Your task to perform on an android device: snooze an email in the gmail app Image 0: 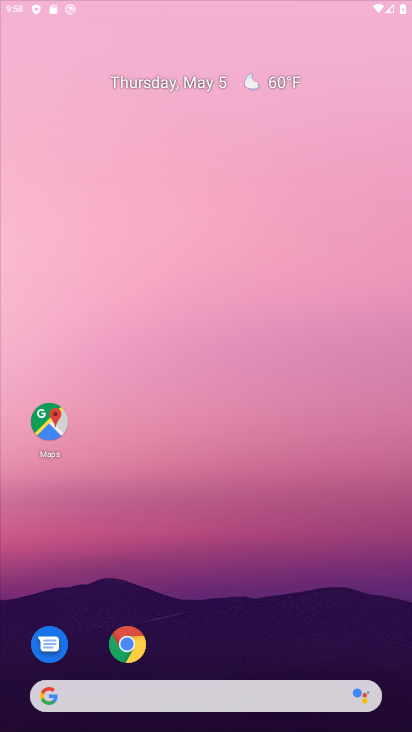
Step 0: click (290, 165)
Your task to perform on an android device: snooze an email in the gmail app Image 1: 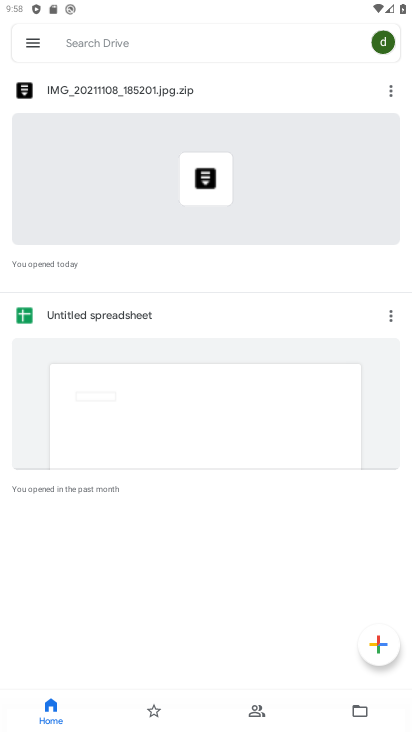
Step 1: press home button
Your task to perform on an android device: snooze an email in the gmail app Image 2: 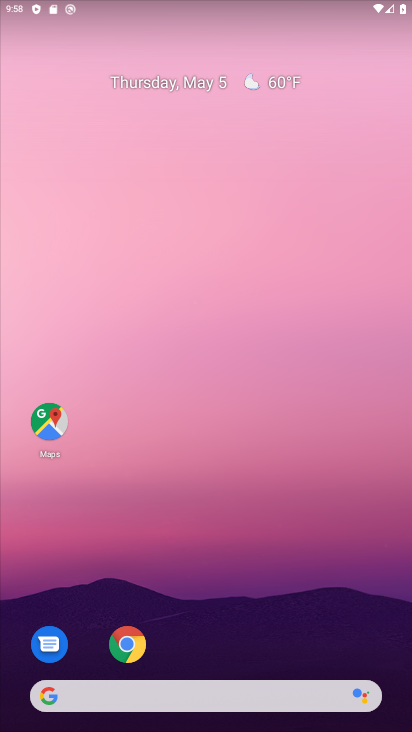
Step 2: drag from (392, 653) to (364, 142)
Your task to perform on an android device: snooze an email in the gmail app Image 3: 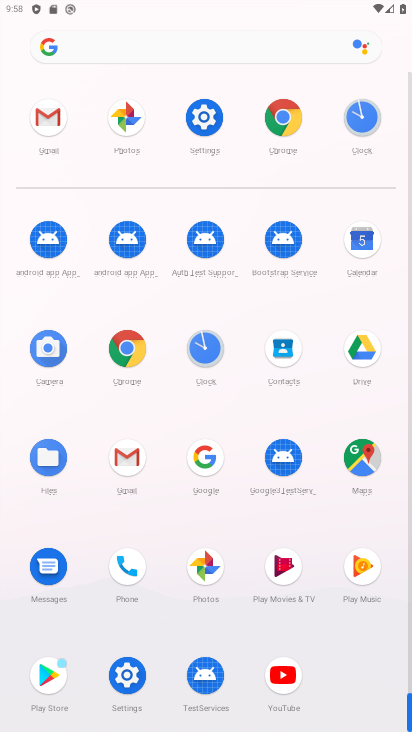
Step 3: click (43, 119)
Your task to perform on an android device: snooze an email in the gmail app Image 4: 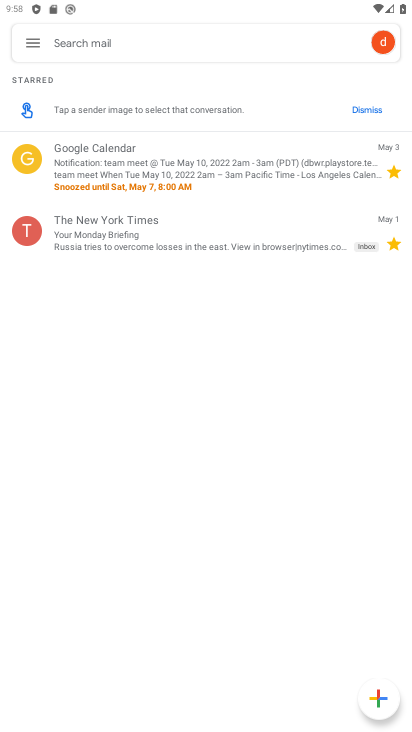
Step 4: click (34, 39)
Your task to perform on an android device: snooze an email in the gmail app Image 5: 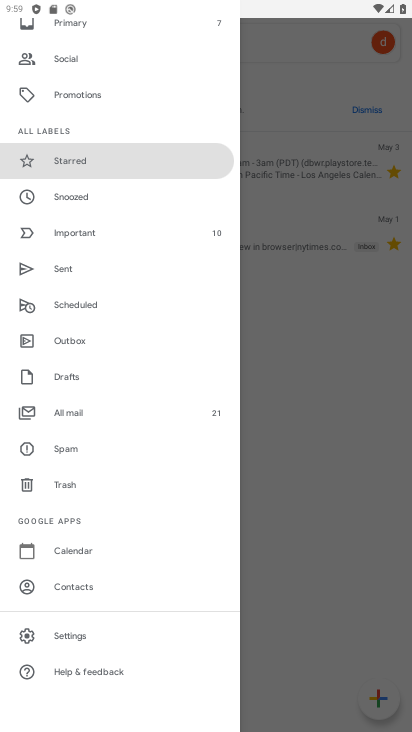
Step 5: click (92, 199)
Your task to perform on an android device: snooze an email in the gmail app Image 6: 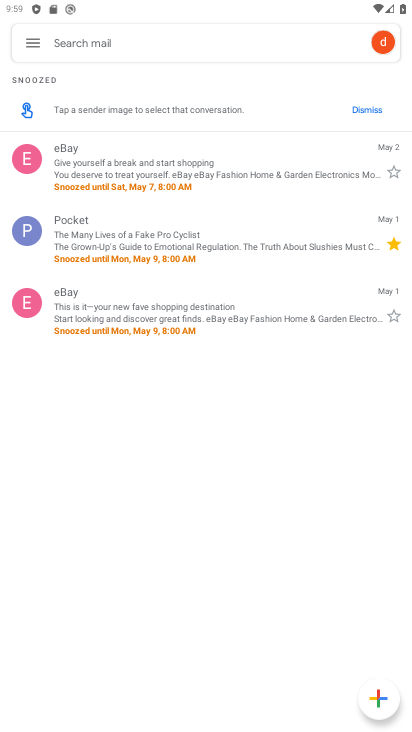
Step 6: task complete